Your task to perform on an android device: What's the weather going to be this weekend? Image 0: 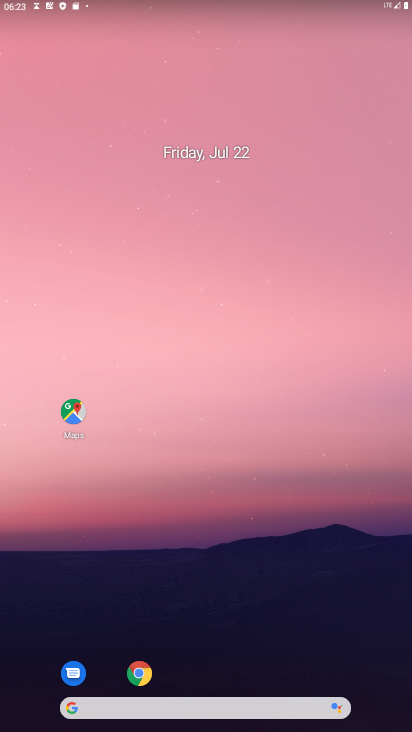
Step 0: press home button
Your task to perform on an android device: What's the weather going to be this weekend? Image 1: 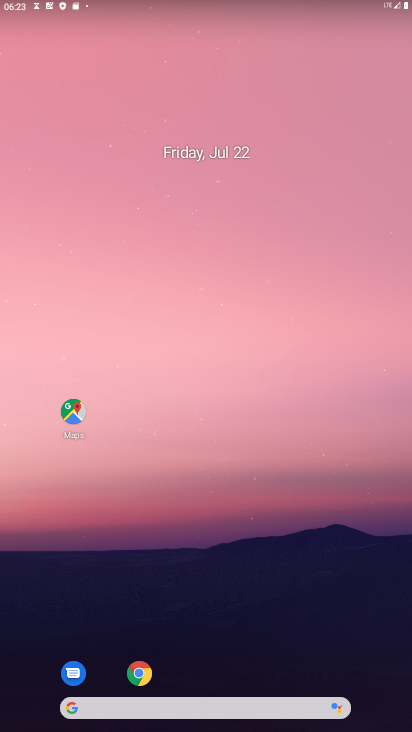
Step 1: click (69, 712)
Your task to perform on an android device: What's the weather going to be this weekend? Image 2: 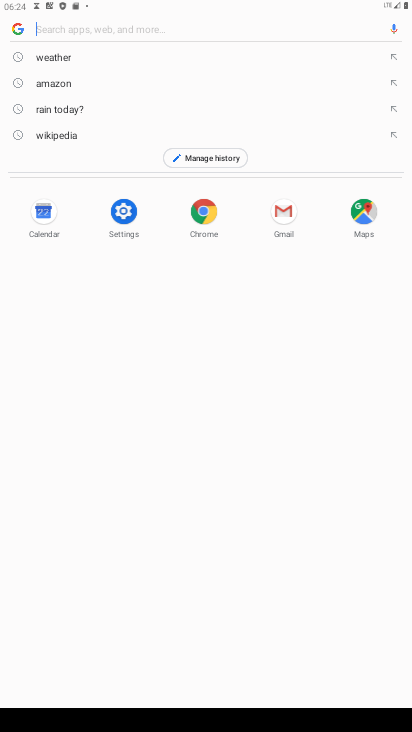
Step 2: type "weather going to be this weekend?"
Your task to perform on an android device: What's the weather going to be this weekend? Image 3: 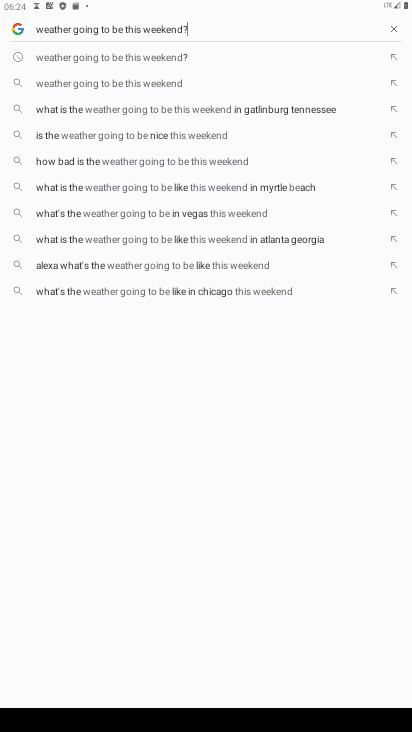
Step 3: press enter
Your task to perform on an android device: What's the weather going to be this weekend? Image 4: 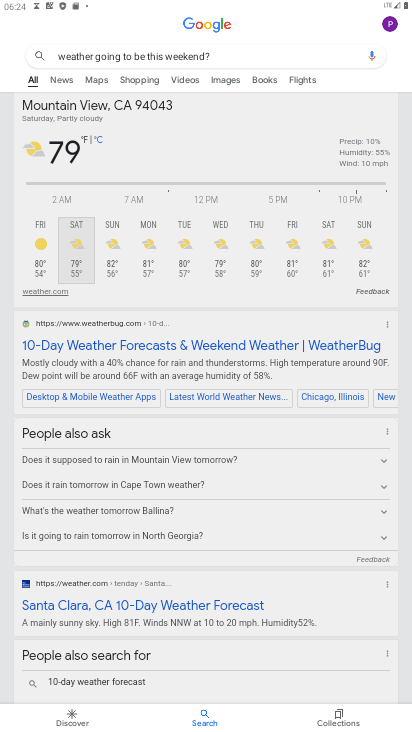
Step 4: task complete